Your task to perform on an android device: Clear the shopping cart on amazon.com. Image 0: 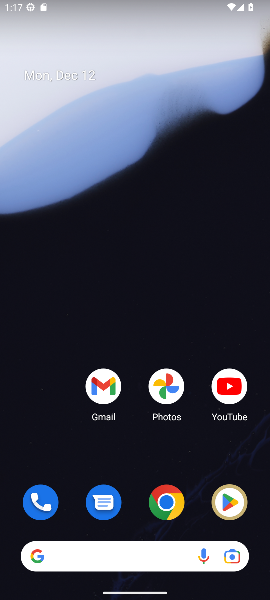
Step 0: click (162, 513)
Your task to perform on an android device: Clear the shopping cart on amazon.com. Image 1: 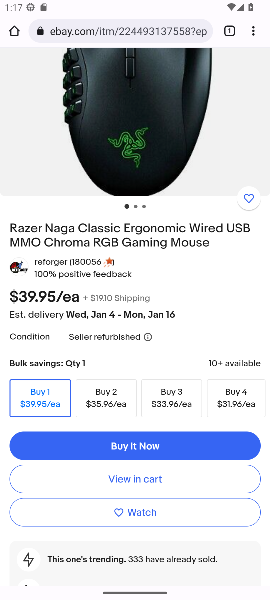
Step 1: click (153, 39)
Your task to perform on an android device: Clear the shopping cart on amazon.com. Image 2: 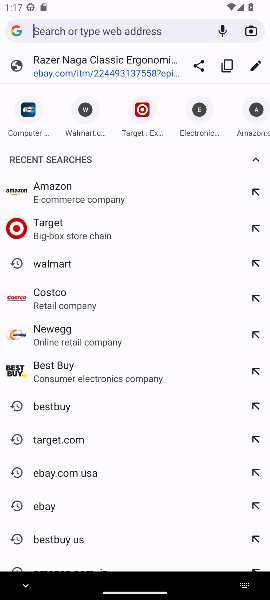
Step 2: click (253, 129)
Your task to perform on an android device: Clear the shopping cart on amazon.com. Image 3: 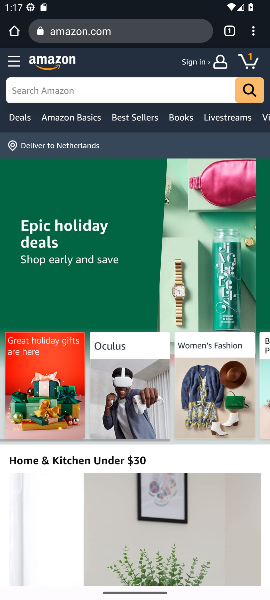
Step 3: click (95, 98)
Your task to perform on an android device: Clear the shopping cart on amazon.com. Image 4: 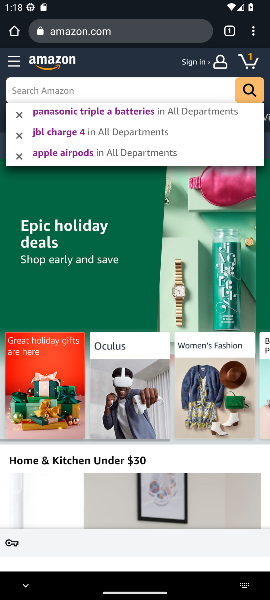
Step 4: click (243, 65)
Your task to perform on an android device: Clear the shopping cart on amazon.com. Image 5: 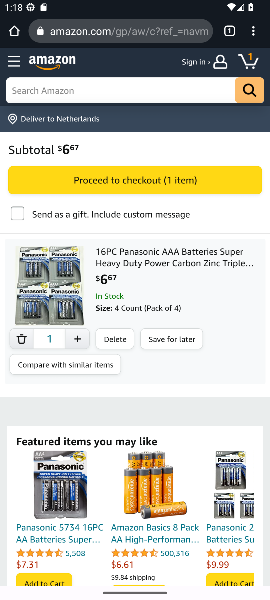
Step 5: click (24, 342)
Your task to perform on an android device: Clear the shopping cart on amazon.com. Image 6: 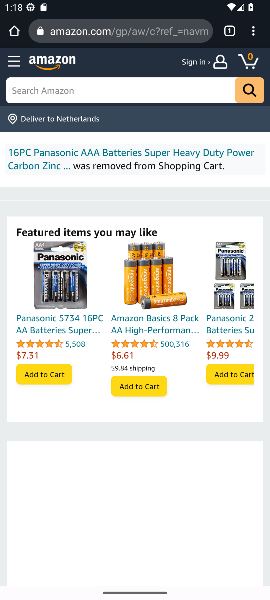
Step 6: task complete